Your task to perform on an android device: What's the weather? Image 0: 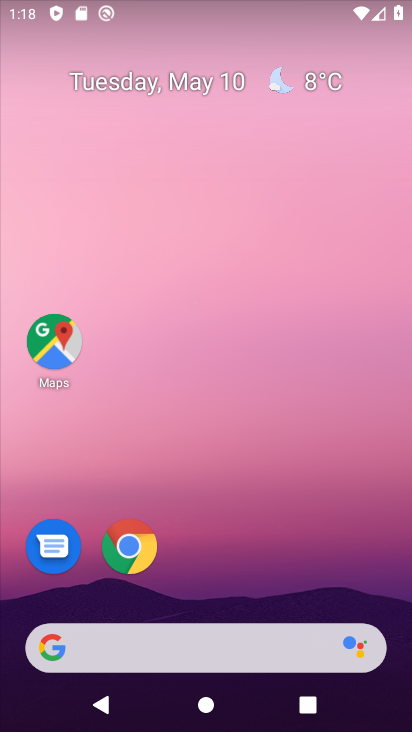
Step 0: click (304, 81)
Your task to perform on an android device: What's the weather? Image 1: 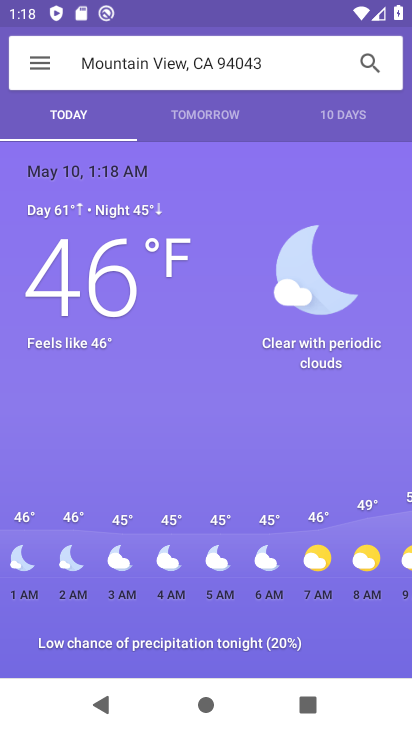
Step 1: task complete